Your task to perform on an android device: turn off priority inbox in the gmail app Image 0: 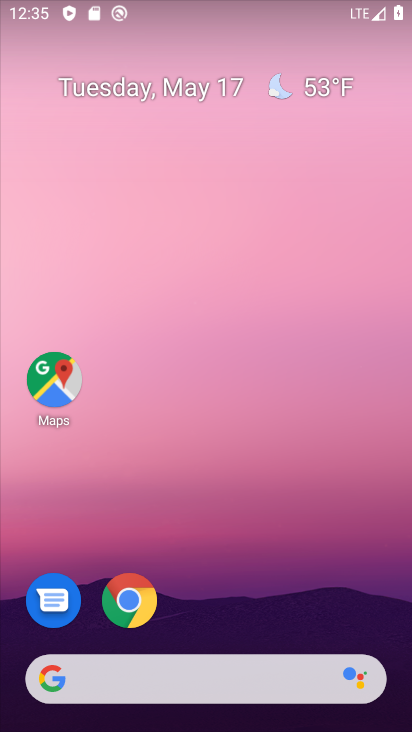
Step 0: drag from (248, 623) to (299, 228)
Your task to perform on an android device: turn off priority inbox in the gmail app Image 1: 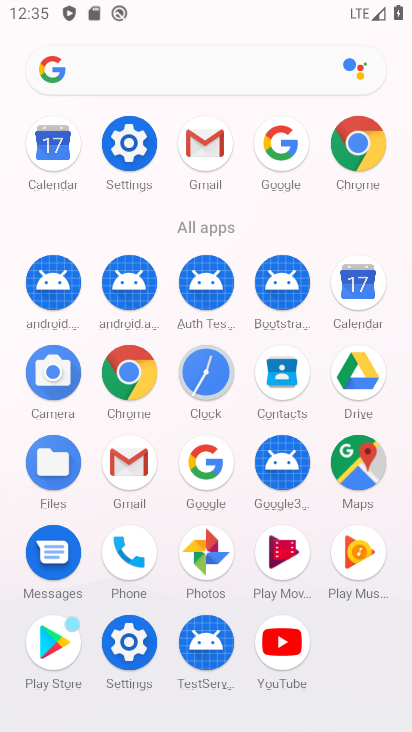
Step 1: click (210, 162)
Your task to perform on an android device: turn off priority inbox in the gmail app Image 2: 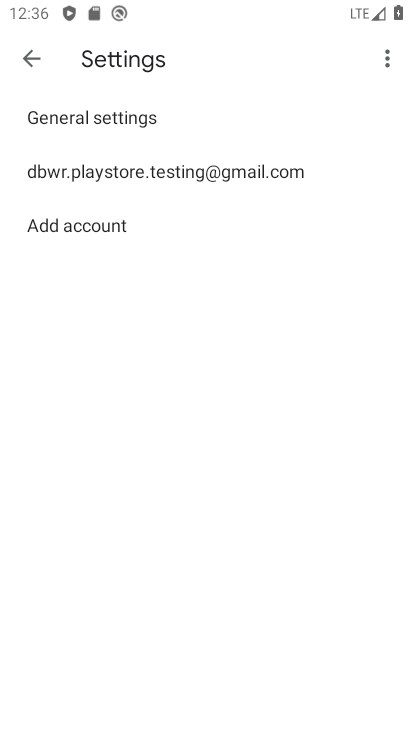
Step 2: click (27, 67)
Your task to perform on an android device: turn off priority inbox in the gmail app Image 3: 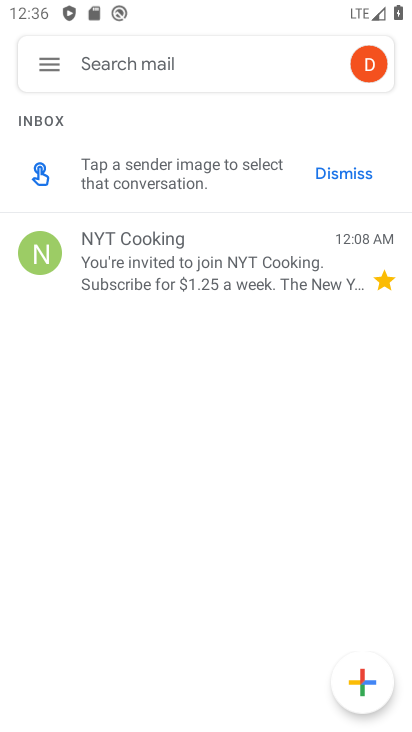
Step 3: click (46, 70)
Your task to perform on an android device: turn off priority inbox in the gmail app Image 4: 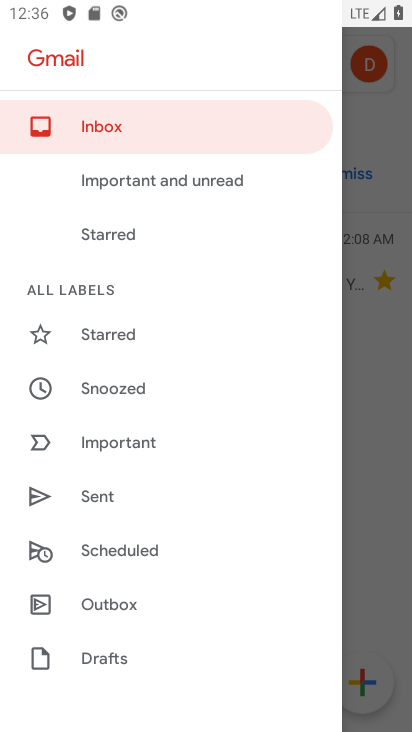
Step 4: drag from (154, 668) to (186, 364)
Your task to perform on an android device: turn off priority inbox in the gmail app Image 5: 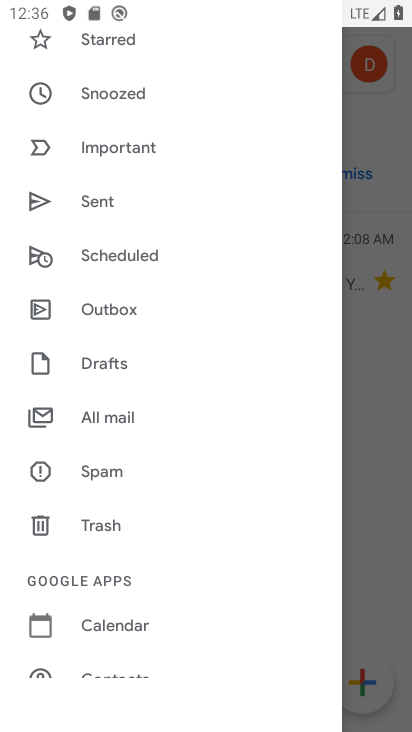
Step 5: drag from (146, 606) to (182, 308)
Your task to perform on an android device: turn off priority inbox in the gmail app Image 6: 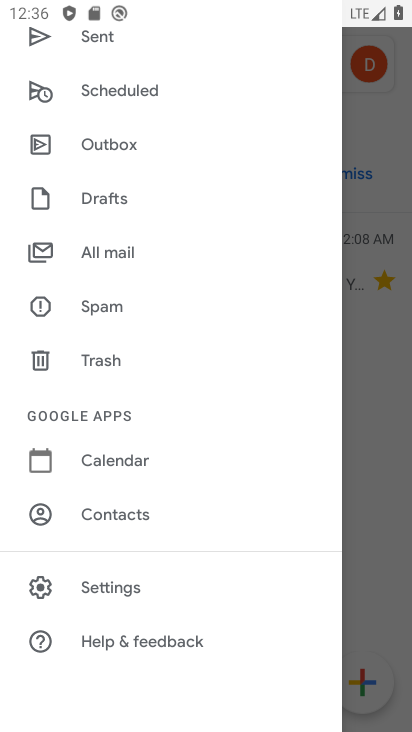
Step 6: click (122, 588)
Your task to perform on an android device: turn off priority inbox in the gmail app Image 7: 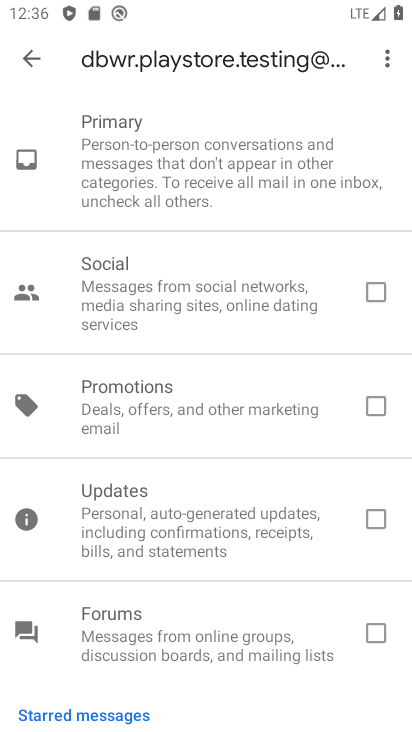
Step 7: click (28, 59)
Your task to perform on an android device: turn off priority inbox in the gmail app Image 8: 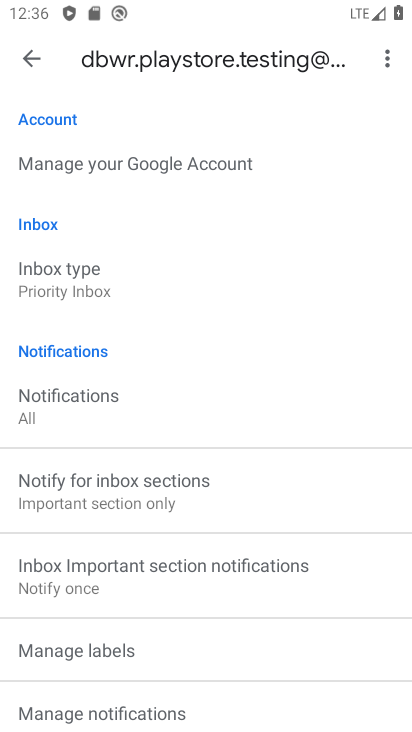
Step 8: click (64, 292)
Your task to perform on an android device: turn off priority inbox in the gmail app Image 9: 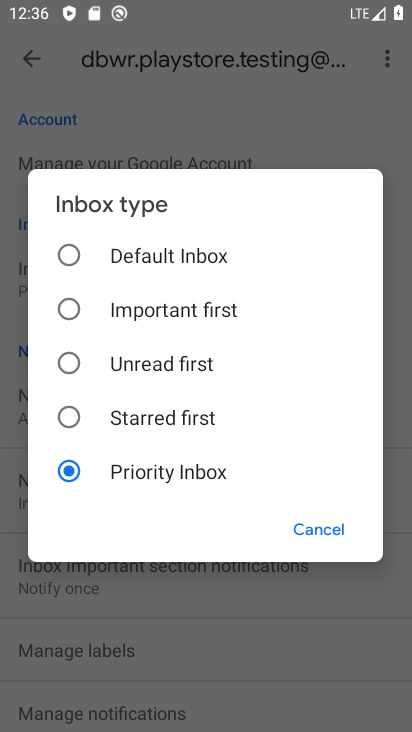
Step 9: click (63, 255)
Your task to perform on an android device: turn off priority inbox in the gmail app Image 10: 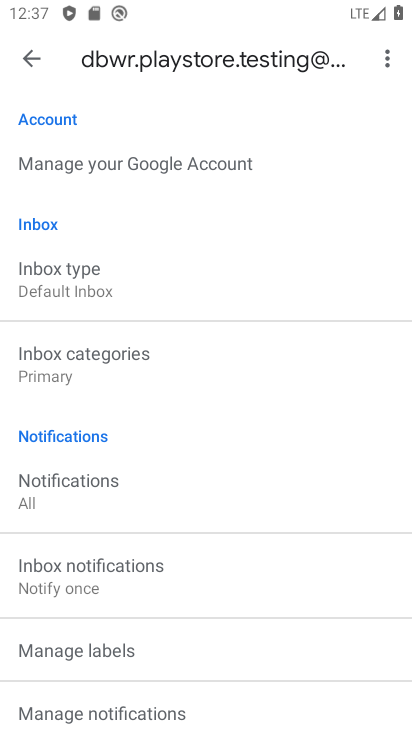
Step 10: task complete